Your task to perform on an android device: see tabs open on other devices in the chrome app Image 0: 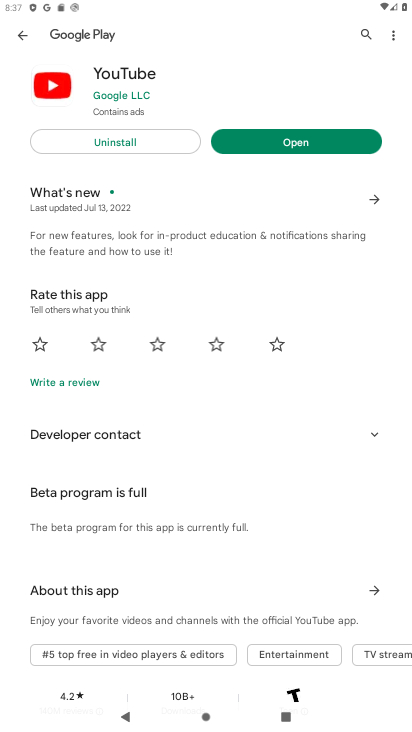
Step 0: press home button
Your task to perform on an android device: see tabs open on other devices in the chrome app Image 1: 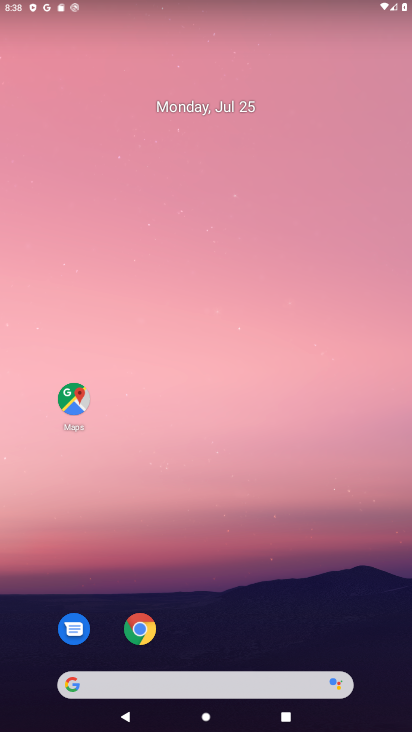
Step 1: click (137, 635)
Your task to perform on an android device: see tabs open on other devices in the chrome app Image 2: 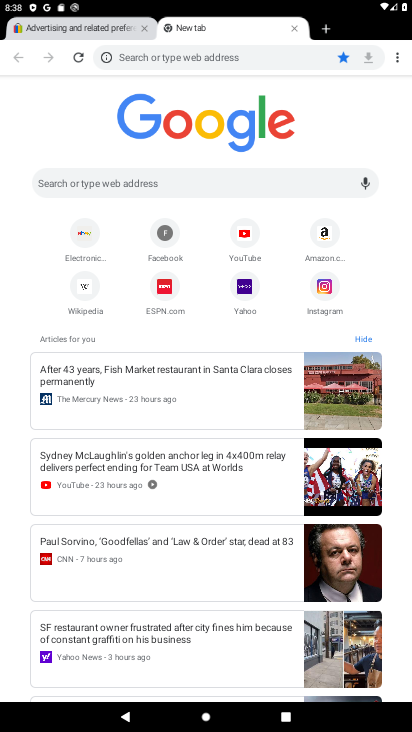
Step 2: click (401, 49)
Your task to perform on an android device: see tabs open on other devices in the chrome app Image 3: 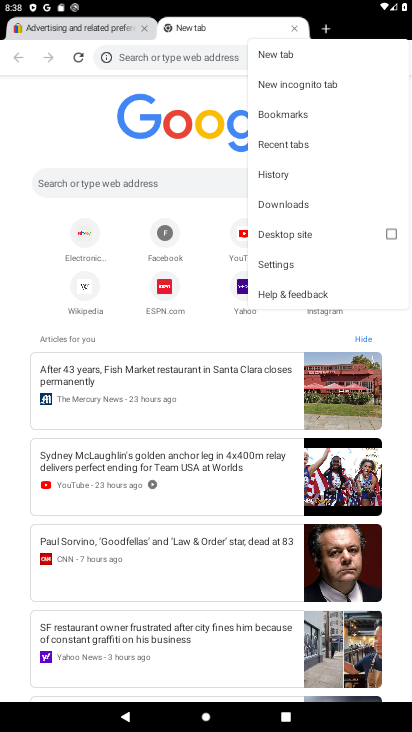
Step 3: click (308, 153)
Your task to perform on an android device: see tabs open on other devices in the chrome app Image 4: 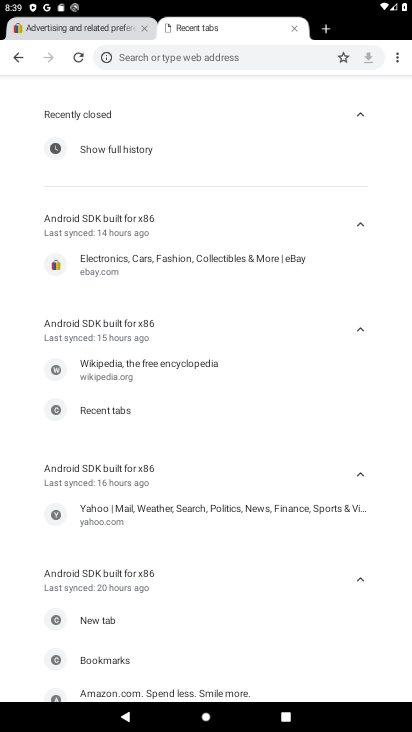
Step 4: task complete